Your task to perform on an android device: change the clock style Image 0: 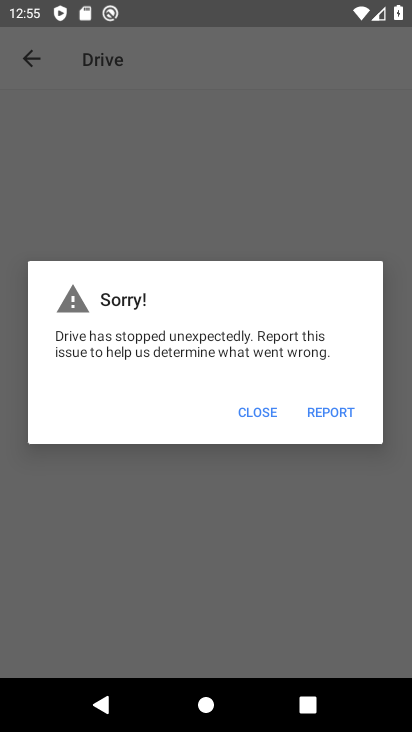
Step 0: press back button
Your task to perform on an android device: change the clock style Image 1: 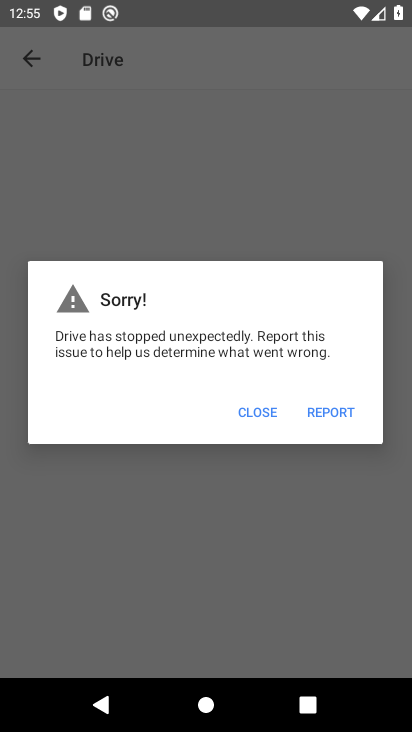
Step 1: press back button
Your task to perform on an android device: change the clock style Image 2: 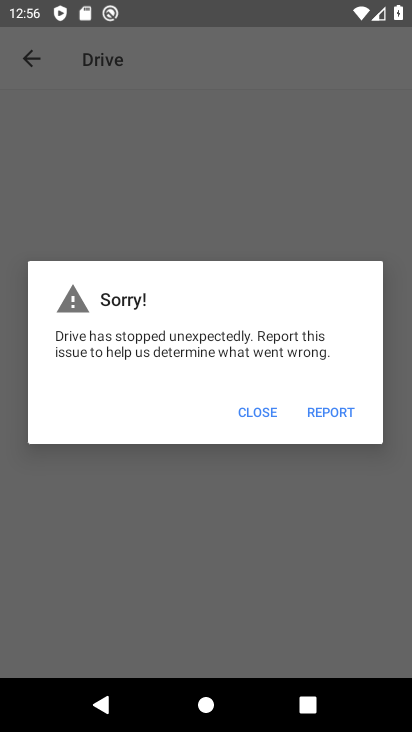
Step 2: press back button
Your task to perform on an android device: change the clock style Image 3: 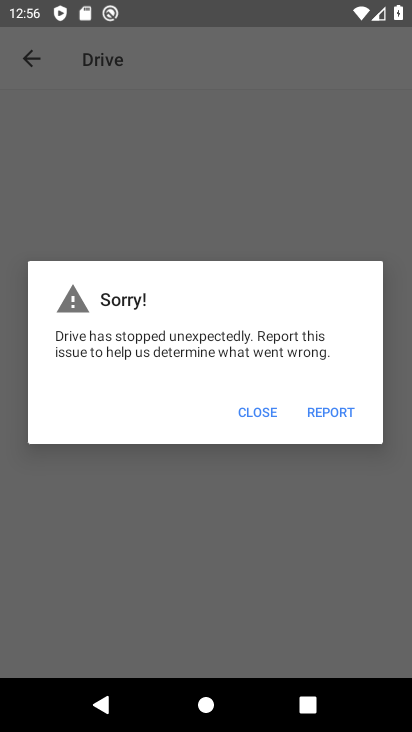
Step 3: press home button
Your task to perform on an android device: change the clock style Image 4: 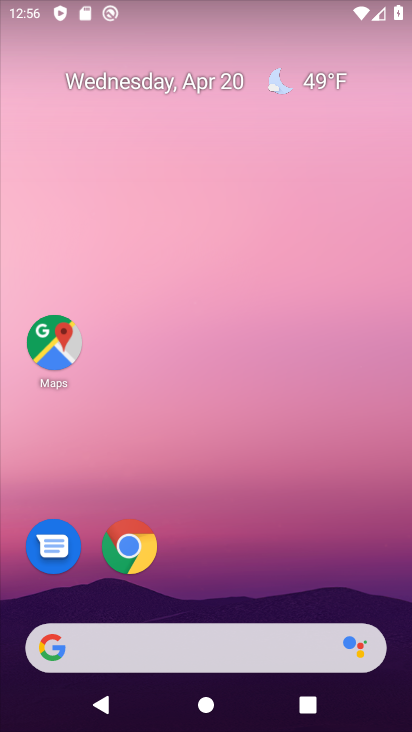
Step 4: drag from (249, 515) to (311, 17)
Your task to perform on an android device: change the clock style Image 5: 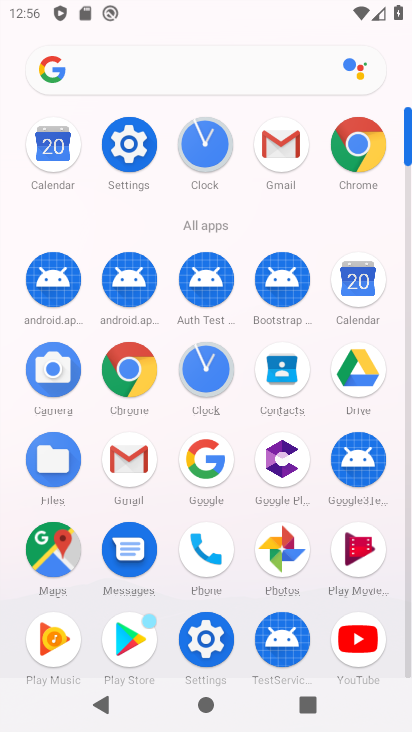
Step 5: click (201, 145)
Your task to perform on an android device: change the clock style Image 6: 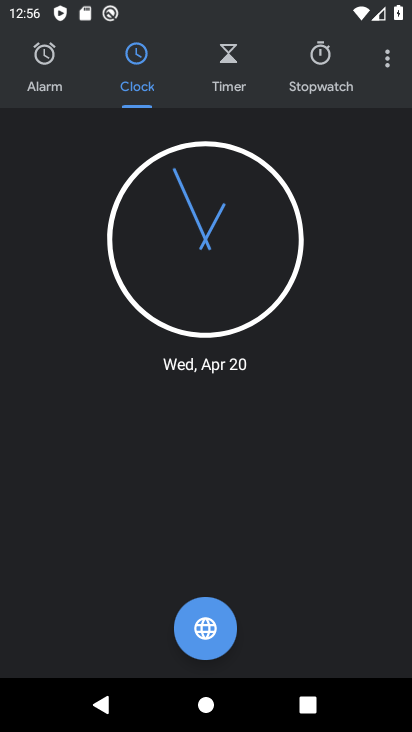
Step 6: click (386, 52)
Your task to perform on an android device: change the clock style Image 7: 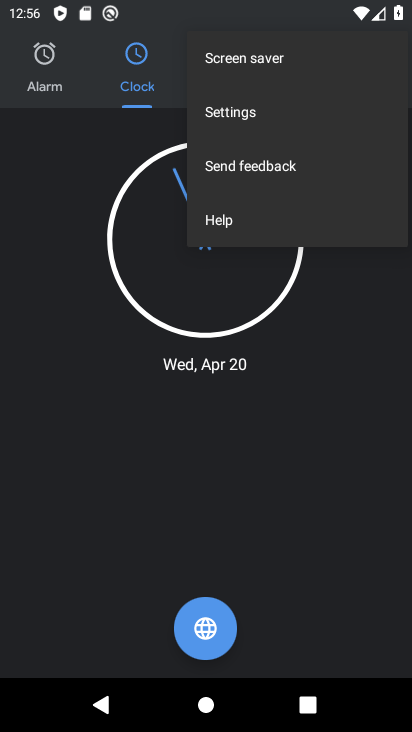
Step 7: click (230, 109)
Your task to perform on an android device: change the clock style Image 8: 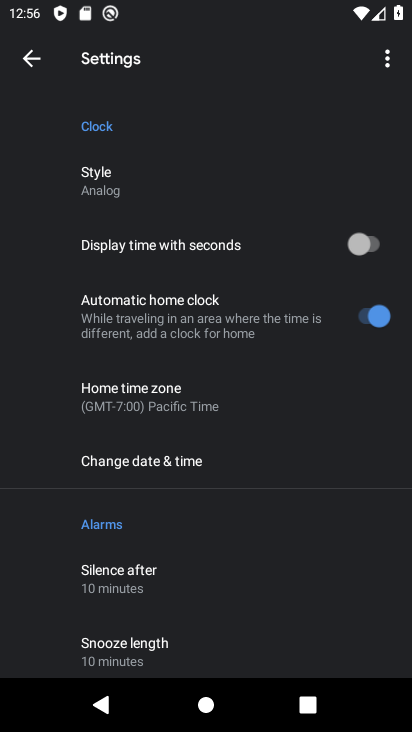
Step 8: click (119, 178)
Your task to perform on an android device: change the clock style Image 9: 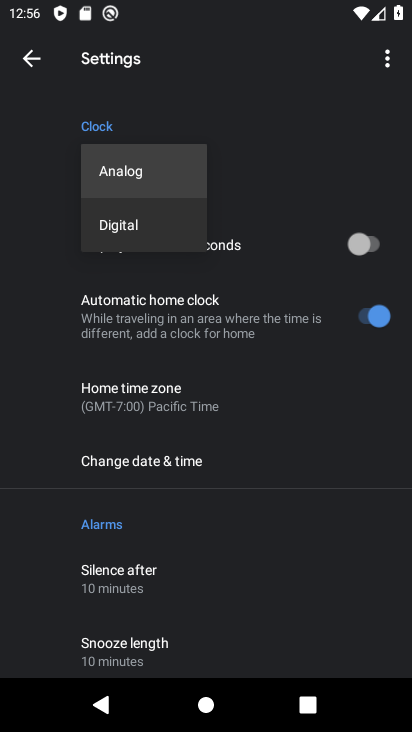
Step 9: click (136, 217)
Your task to perform on an android device: change the clock style Image 10: 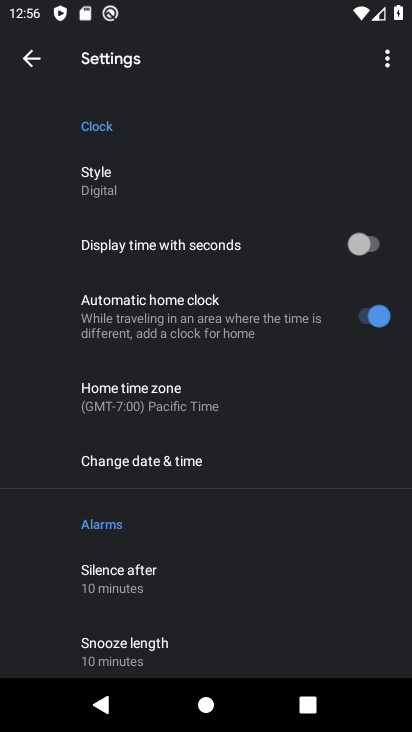
Step 10: task complete